Your task to perform on an android device: turn off picture-in-picture Image 0: 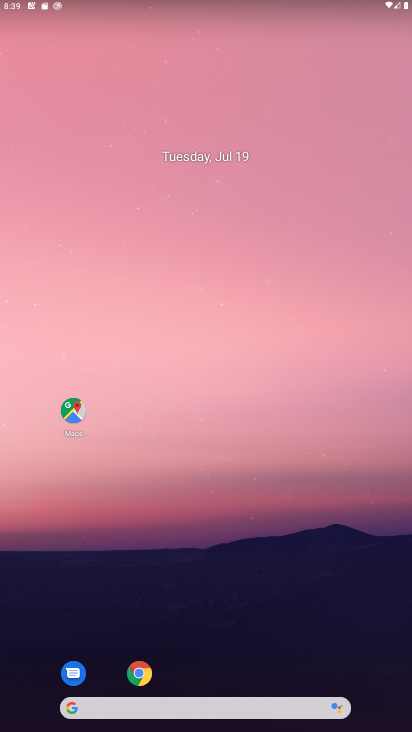
Step 0: drag from (369, 668) to (335, 228)
Your task to perform on an android device: turn off picture-in-picture Image 1: 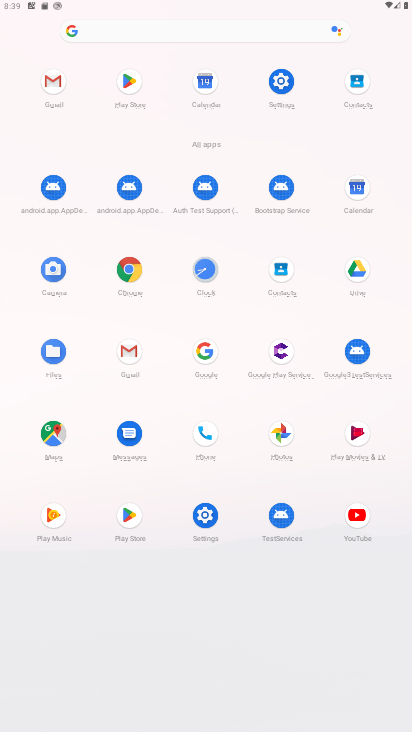
Step 1: click (204, 517)
Your task to perform on an android device: turn off picture-in-picture Image 2: 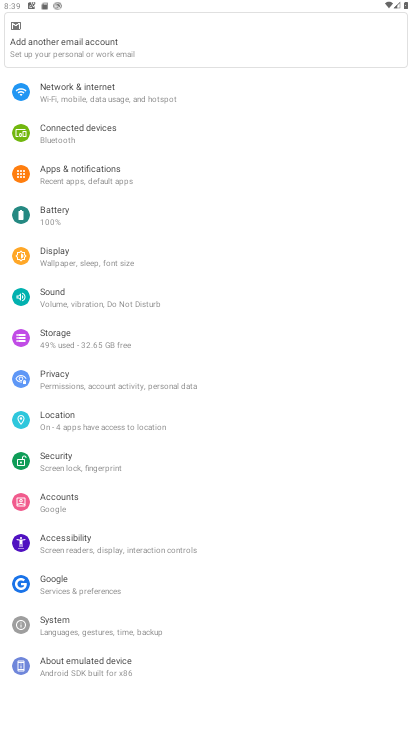
Step 2: click (79, 166)
Your task to perform on an android device: turn off picture-in-picture Image 3: 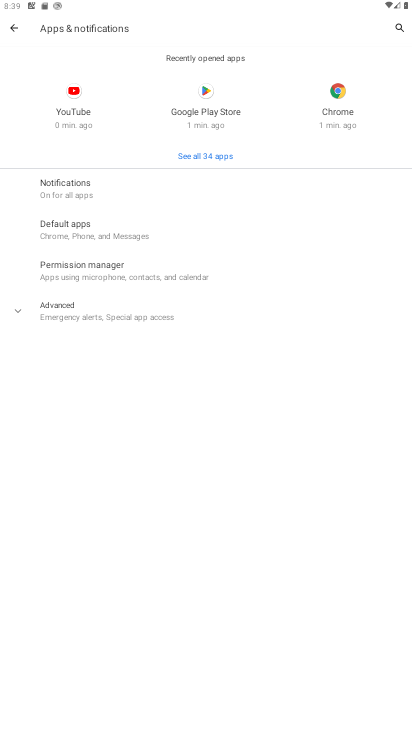
Step 3: click (18, 310)
Your task to perform on an android device: turn off picture-in-picture Image 4: 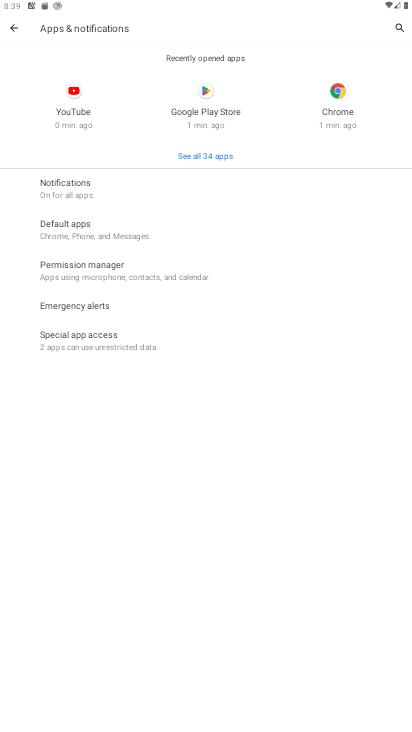
Step 4: click (67, 340)
Your task to perform on an android device: turn off picture-in-picture Image 5: 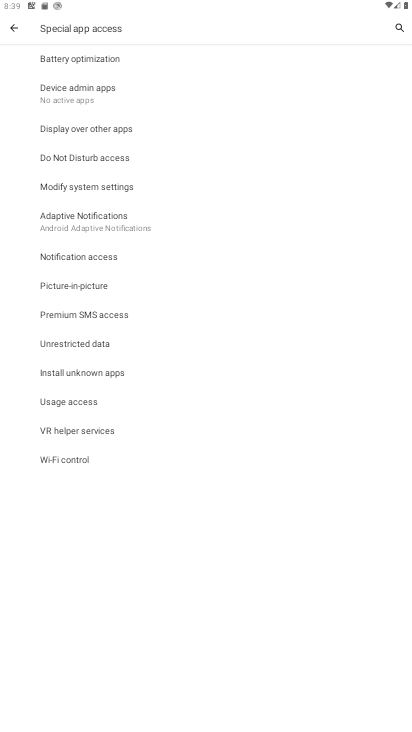
Step 5: click (71, 278)
Your task to perform on an android device: turn off picture-in-picture Image 6: 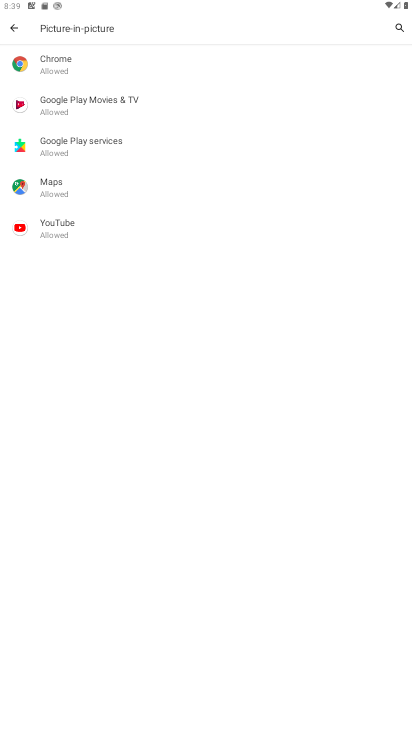
Step 6: click (50, 221)
Your task to perform on an android device: turn off picture-in-picture Image 7: 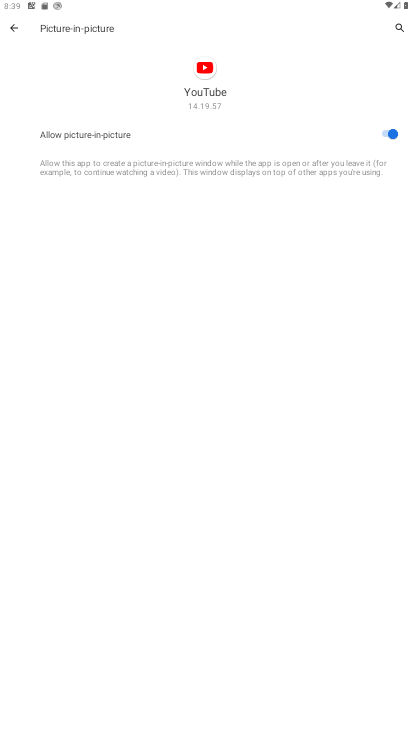
Step 7: click (384, 132)
Your task to perform on an android device: turn off picture-in-picture Image 8: 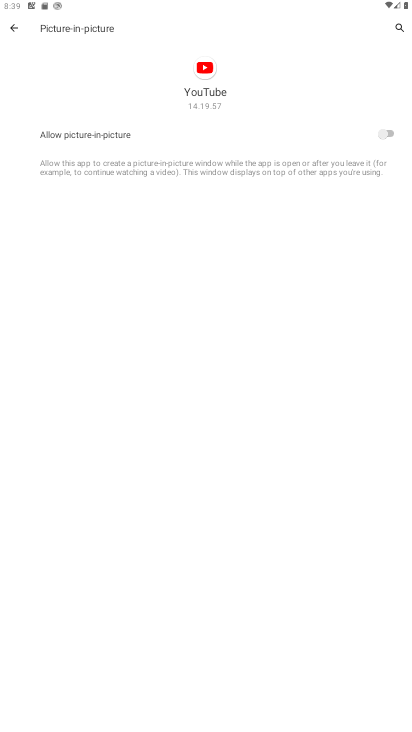
Step 8: task complete